Your task to perform on an android device: Open Chrome and go to the settings page Image 0: 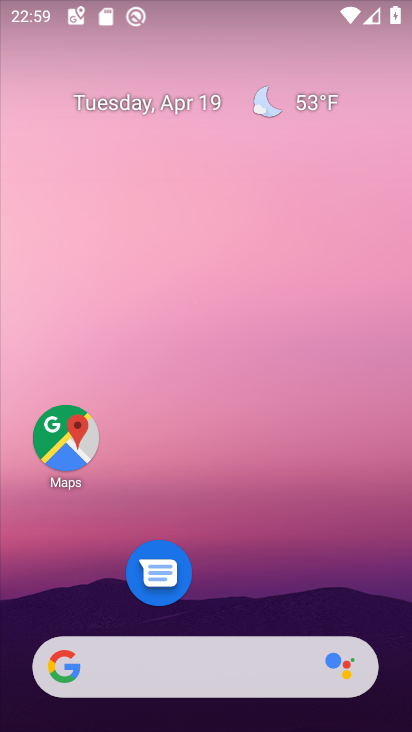
Step 0: drag from (284, 428) to (282, 123)
Your task to perform on an android device: Open Chrome and go to the settings page Image 1: 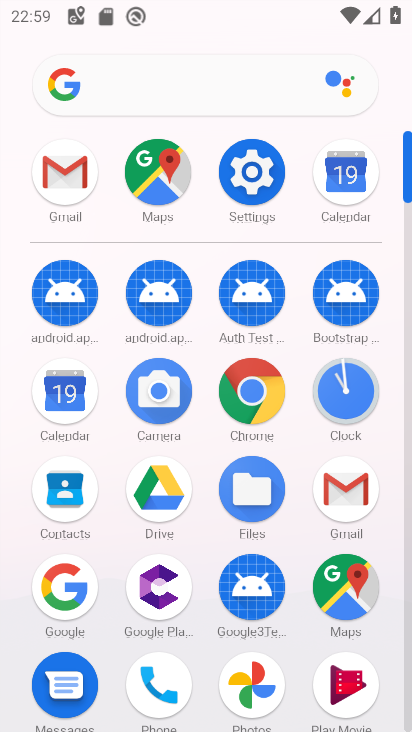
Step 1: click (251, 389)
Your task to perform on an android device: Open Chrome and go to the settings page Image 2: 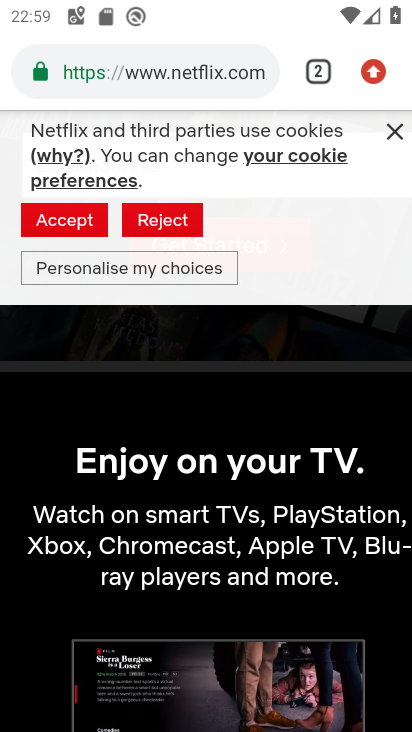
Step 2: click (307, 61)
Your task to perform on an android device: Open Chrome and go to the settings page Image 3: 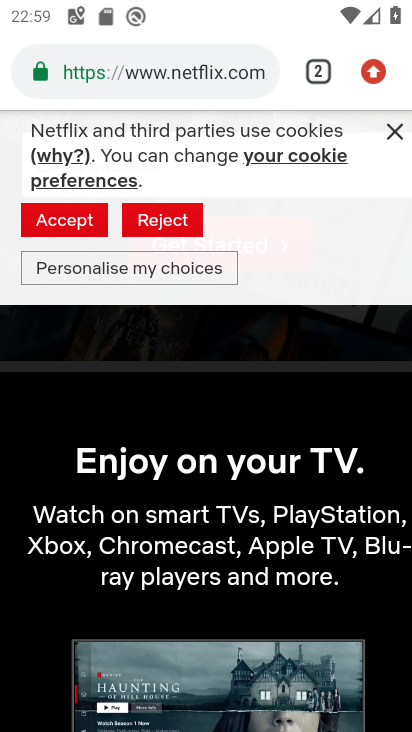
Step 3: click (310, 71)
Your task to perform on an android device: Open Chrome and go to the settings page Image 4: 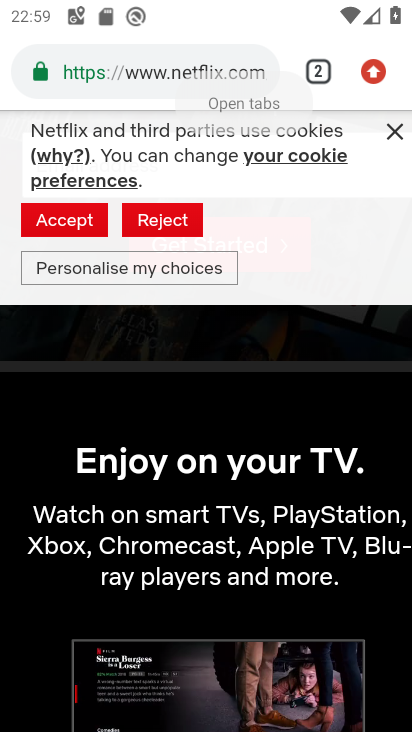
Step 4: click (317, 63)
Your task to perform on an android device: Open Chrome and go to the settings page Image 5: 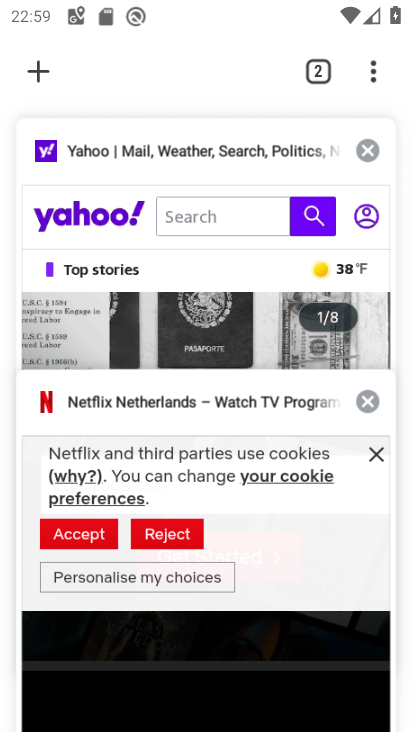
Step 5: click (362, 148)
Your task to perform on an android device: Open Chrome and go to the settings page Image 6: 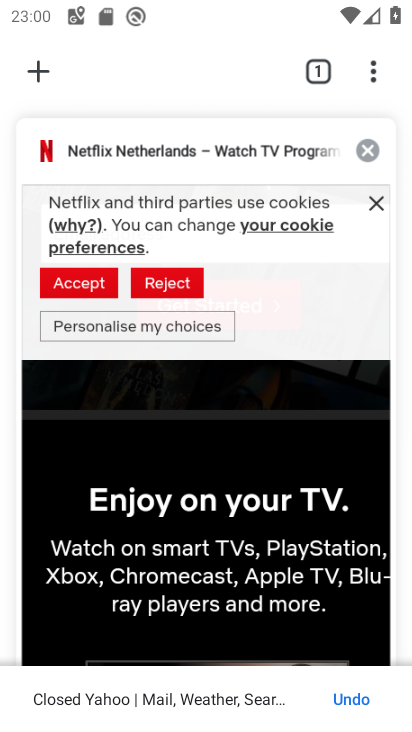
Step 6: click (47, 76)
Your task to perform on an android device: Open Chrome and go to the settings page Image 7: 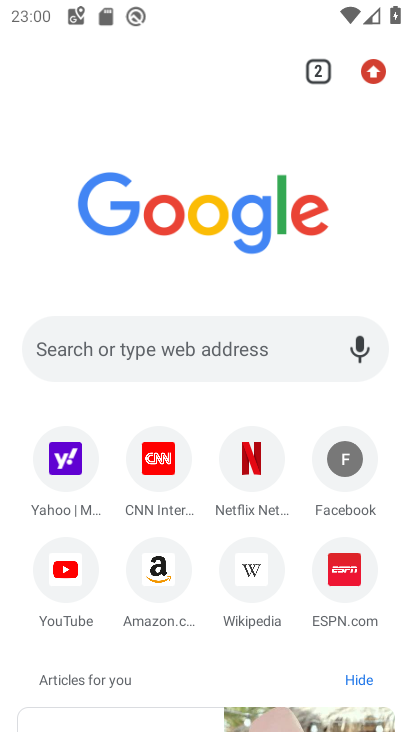
Step 7: click (372, 67)
Your task to perform on an android device: Open Chrome and go to the settings page Image 8: 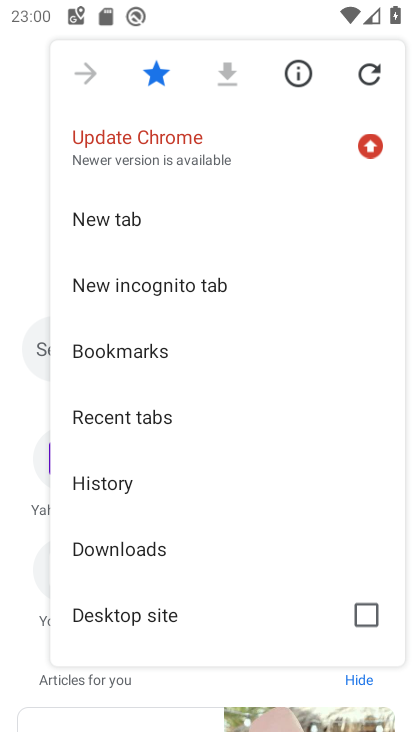
Step 8: drag from (221, 600) to (241, 137)
Your task to perform on an android device: Open Chrome and go to the settings page Image 9: 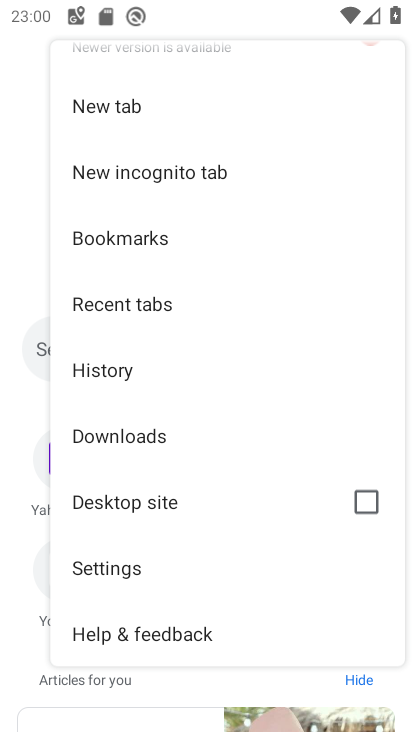
Step 9: click (146, 567)
Your task to perform on an android device: Open Chrome and go to the settings page Image 10: 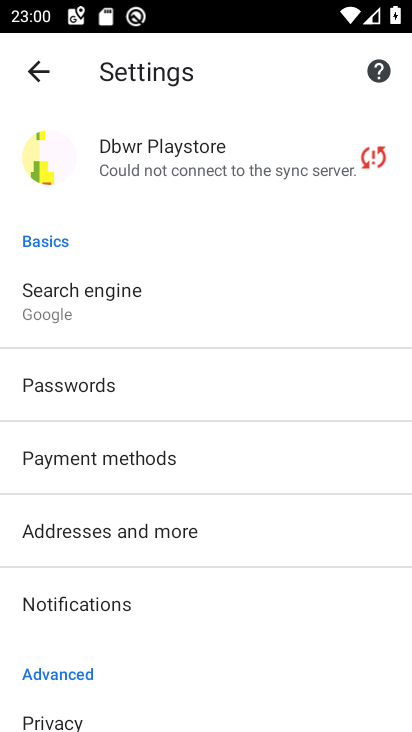
Step 10: task complete